Your task to perform on an android device: check out phone information Image 0: 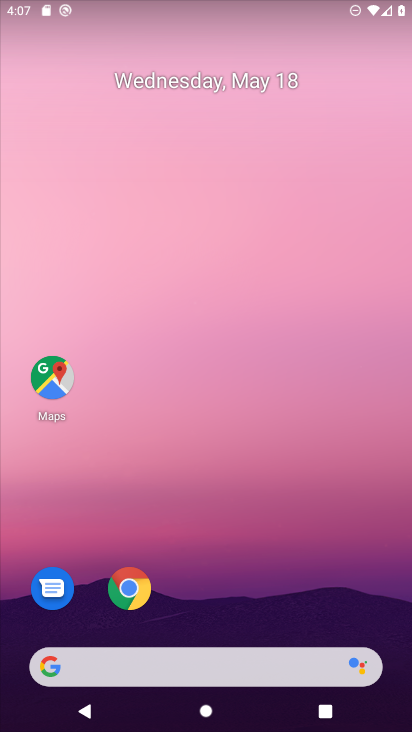
Step 0: drag from (302, 556) to (296, 11)
Your task to perform on an android device: check out phone information Image 1: 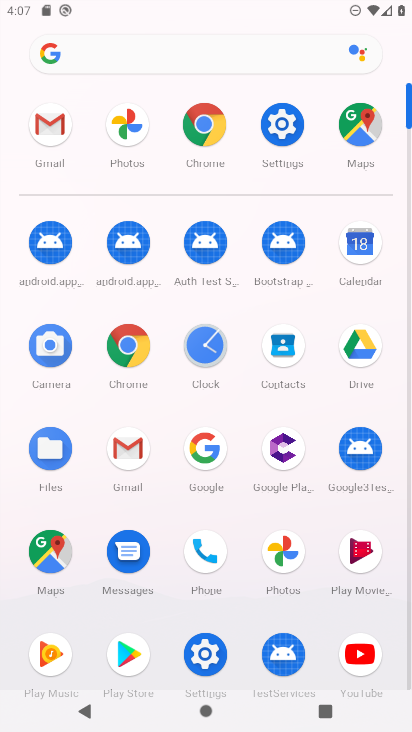
Step 1: click (293, 122)
Your task to perform on an android device: check out phone information Image 2: 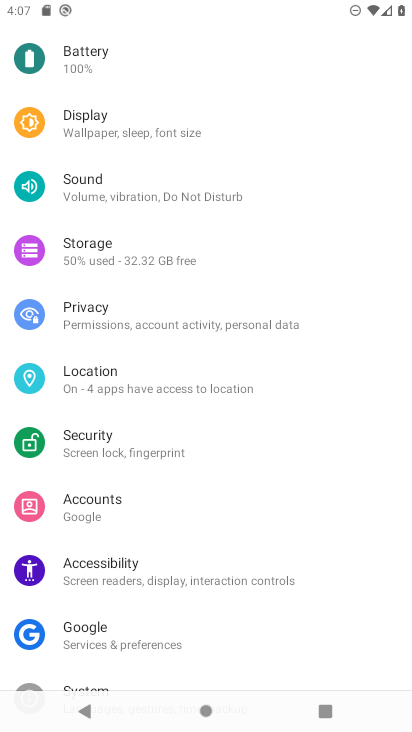
Step 2: drag from (179, 586) to (213, 246)
Your task to perform on an android device: check out phone information Image 3: 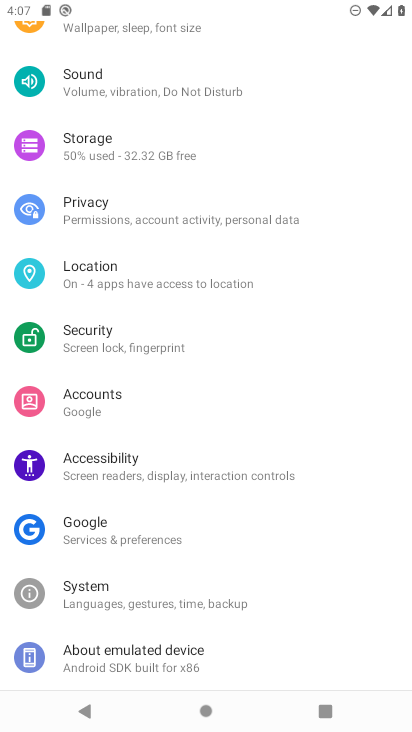
Step 3: drag from (164, 598) to (170, 305)
Your task to perform on an android device: check out phone information Image 4: 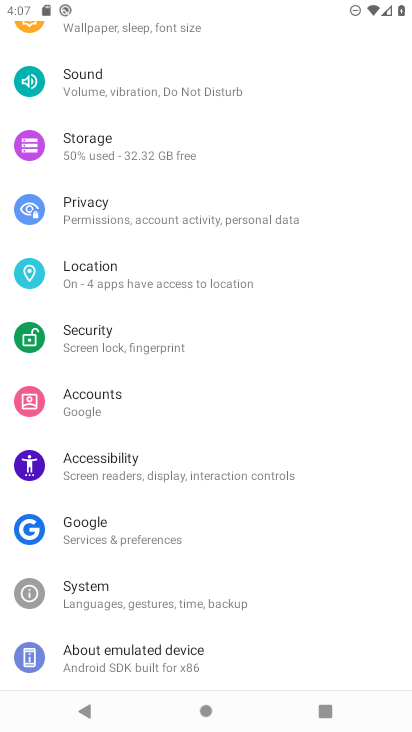
Step 4: click (116, 637)
Your task to perform on an android device: check out phone information Image 5: 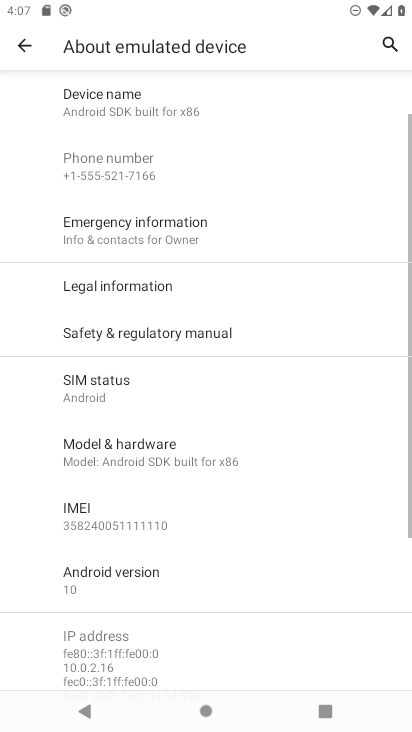
Step 5: task complete